Your task to perform on an android device: turn off sleep mode Image 0: 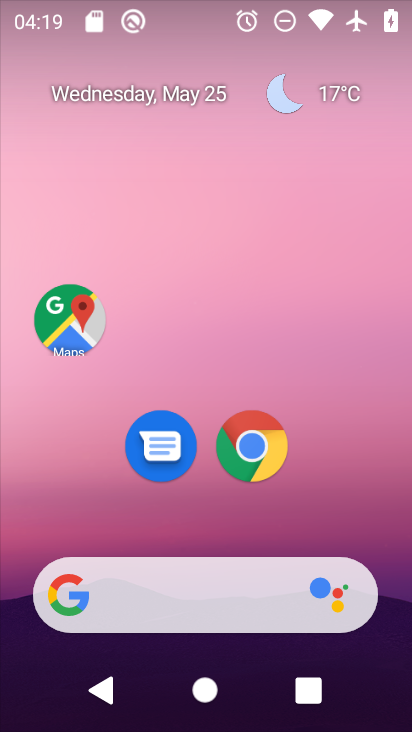
Step 0: drag from (227, 571) to (152, 25)
Your task to perform on an android device: turn off sleep mode Image 1: 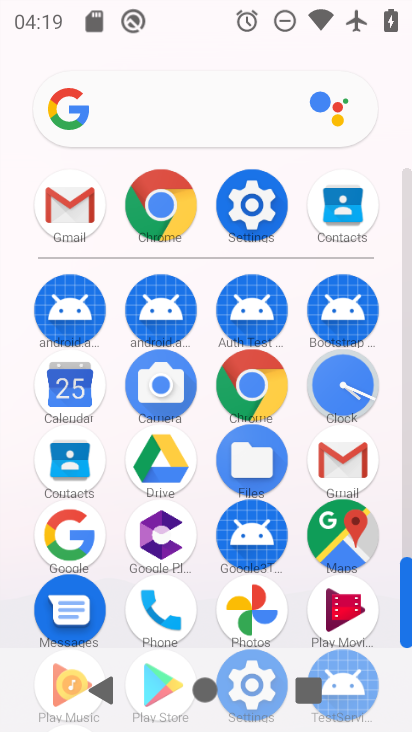
Step 1: click (250, 189)
Your task to perform on an android device: turn off sleep mode Image 2: 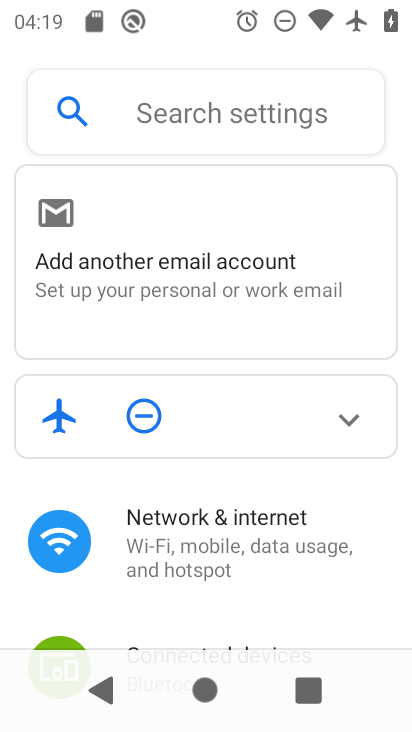
Step 2: drag from (276, 494) to (256, 27)
Your task to perform on an android device: turn off sleep mode Image 3: 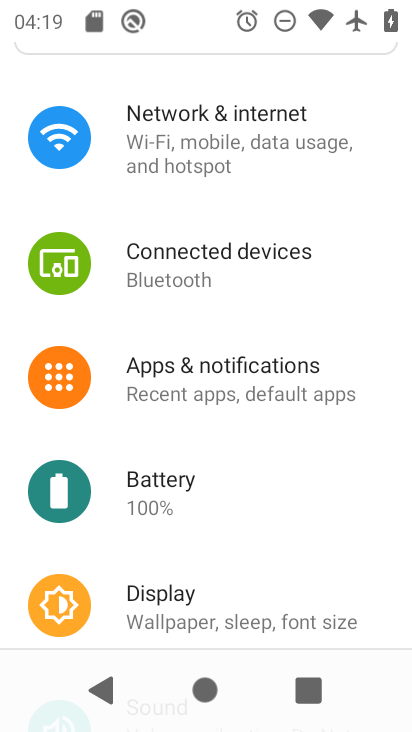
Step 3: drag from (299, 533) to (292, 251)
Your task to perform on an android device: turn off sleep mode Image 4: 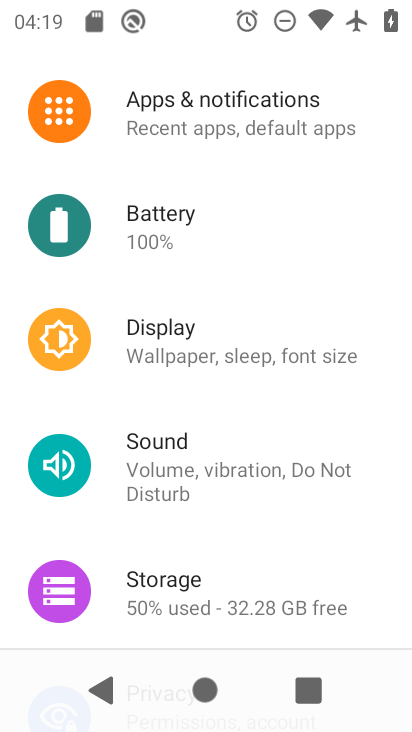
Step 4: click (191, 356)
Your task to perform on an android device: turn off sleep mode Image 5: 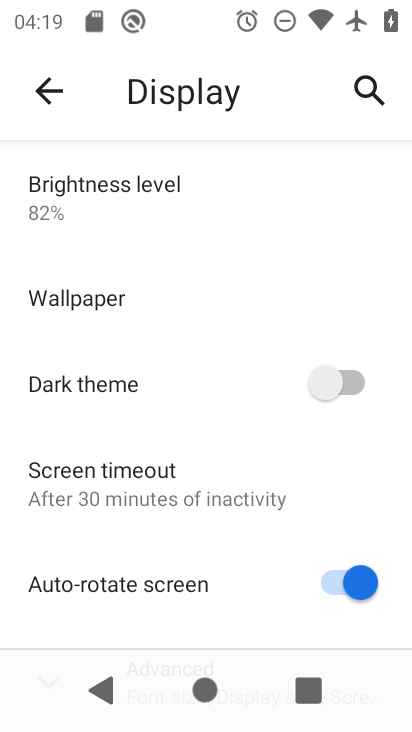
Step 5: task complete